Your task to perform on an android device: toggle airplane mode Image 0: 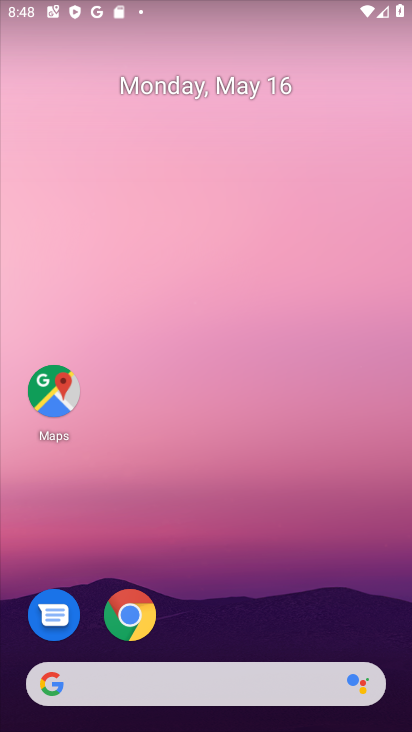
Step 0: drag from (36, 646) to (271, 154)
Your task to perform on an android device: toggle airplane mode Image 1: 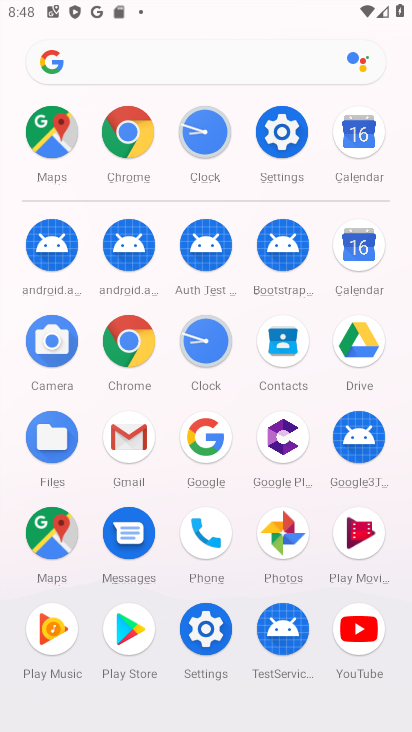
Step 1: click (270, 138)
Your task to perform on an android device: toggle airplane mode Image 2: 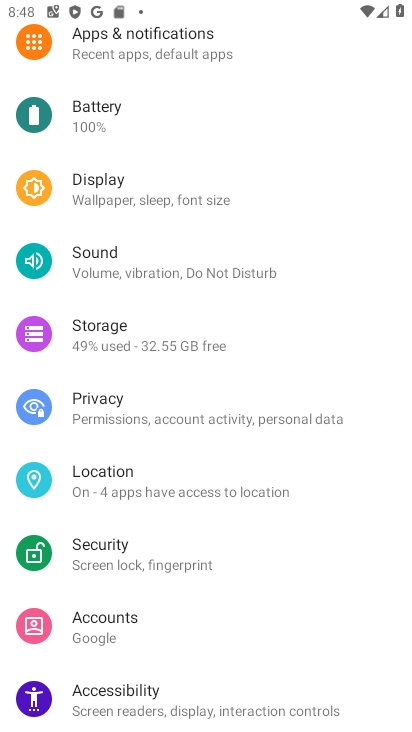
Step 2: drag from (172, 36) to (129, 470)
Your task to perform on an android device: toggle airplane mode Image 3: 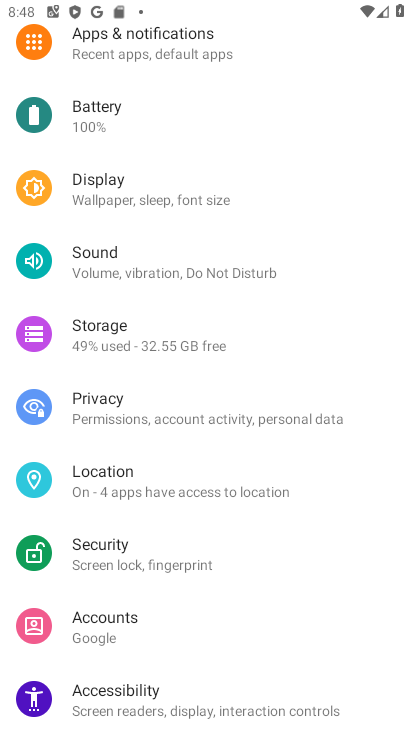
Step 3: drag from (178, 72) to (165, 513)
Your task to perform on an android device: toggle airplane mode Image 4: 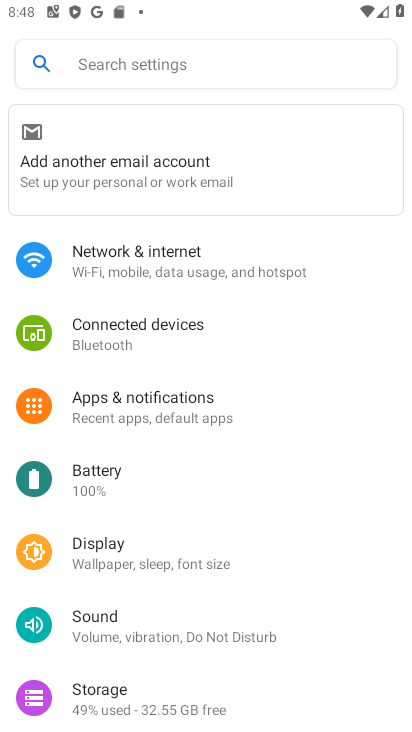
Step 4: click (173, 251)
Your task to perform on an android device: toggle airplane mode Image 5: 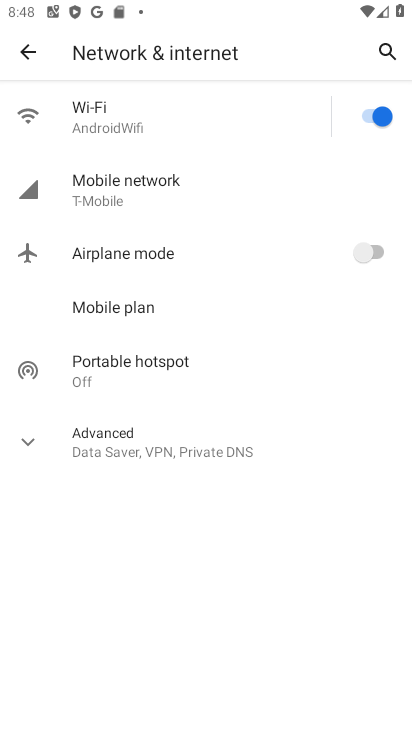
Step 5: click (372, 248)
Your task to perform on an android device: toggle airplane mode Image 6: 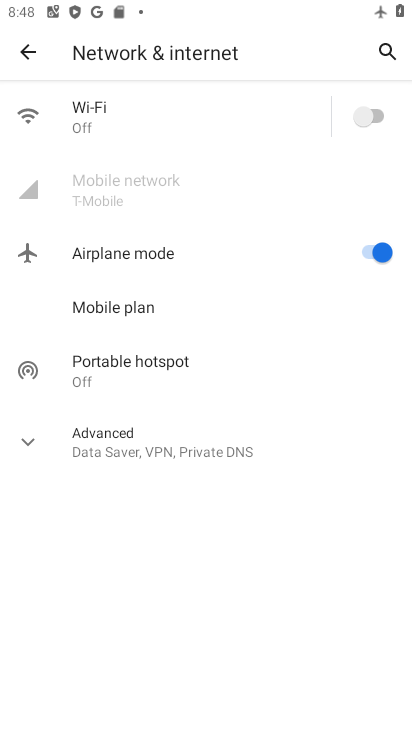
Step 6: task complete